Your task to perform on an android device: Open Wikipedia Image 0: 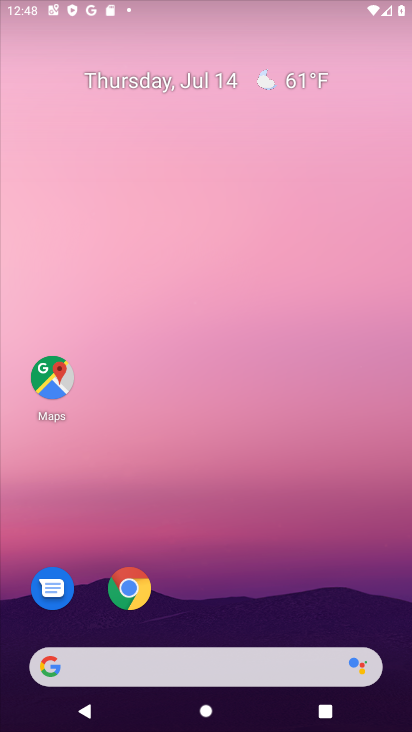
Step 0: drag from (232, 605) to (203, 89)
Your task to perform on an android device: Open Wikipedia Image 1: 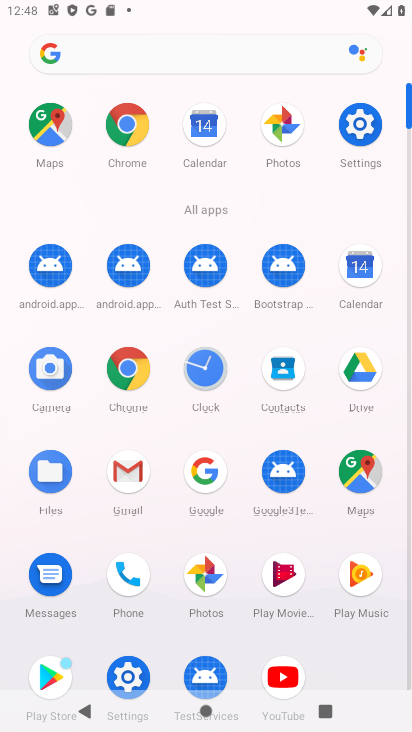
Step 1: click (123, 367)
Your task to perform on an android device: Open Wikipedia Image 2: 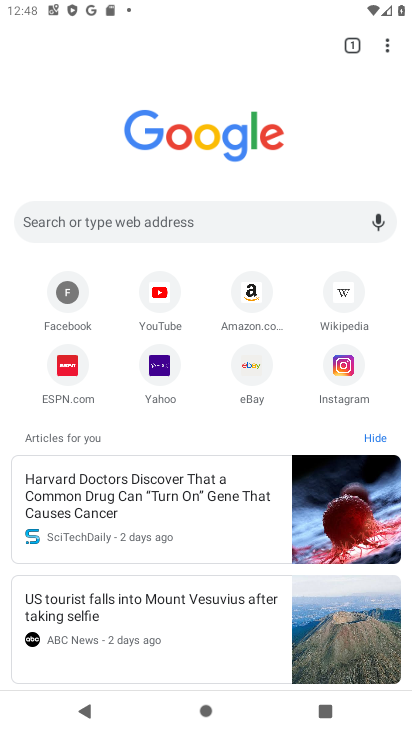
Step 2: click (349, 295)
Your task to perform on an android device: Open Wikipedia Image 3: 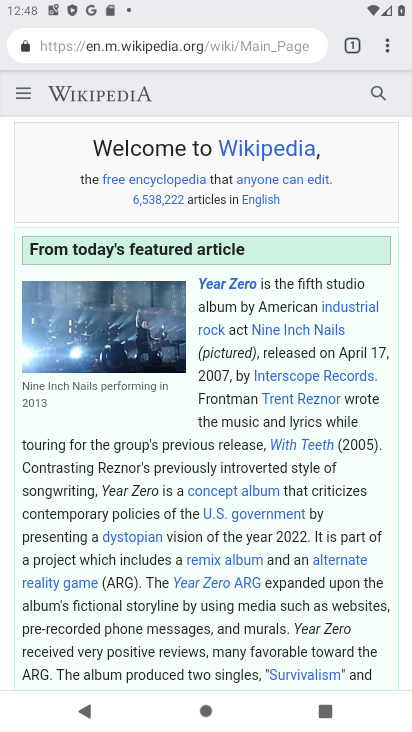
Step 3: task complete